Your task to perform on an android device: turn on notifications settings in the gmail app Image 0: 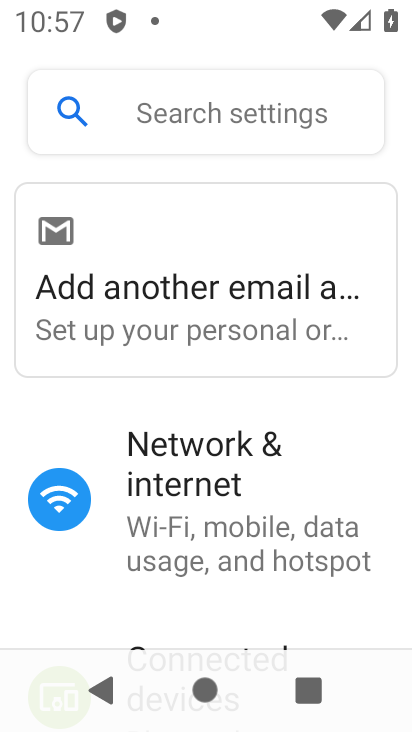
Step 0: press home button
Your task to perform on an android device: turn on notifications settings in the gmail app Image 1: 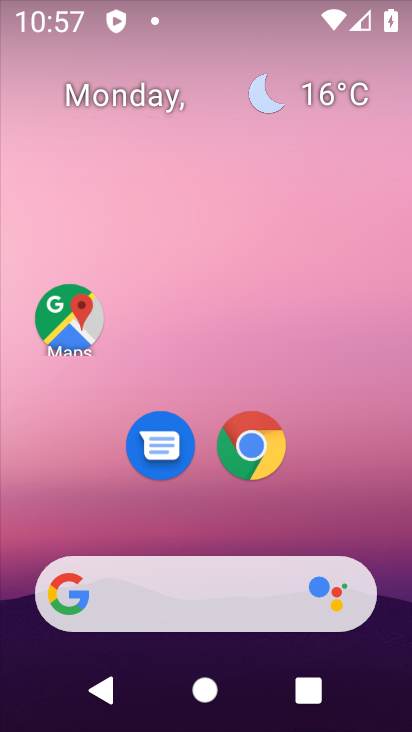
Step 1: drag from (213, 531) to (197, 20)
Your task to perform on an android device: turn on notifications settings in the gmail app Image 2: 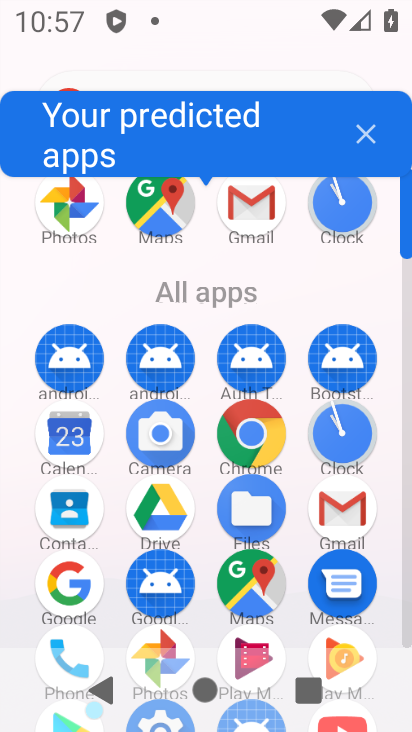
Step 2: click (346, 514)
Your task to perform on an android device: turn on notifications settings in the gmail app Image 3: 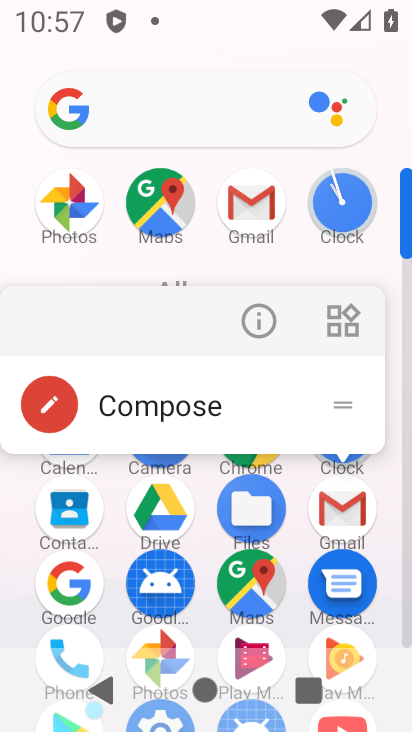
Step 3: click (337, 511)
Your task to perform on an android device: turn on notifications settings in the gmail app Image 4: 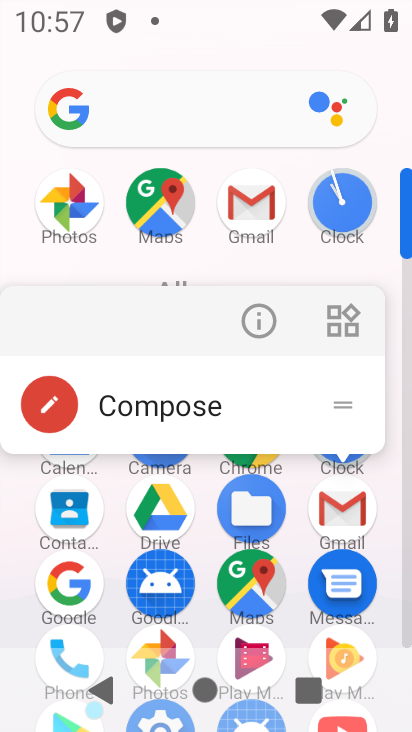
Step 4: click (339, 513)
Your task to perform on an android device: turn on notifications settings in the gmail app Image 5: 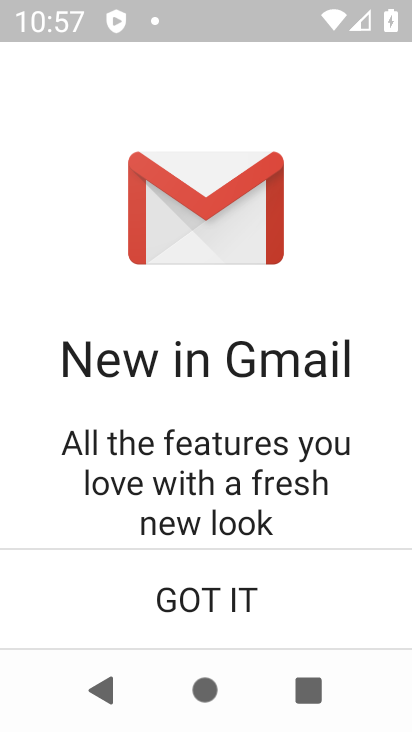
Step 5: click (236, 617)
Your task to perform on an android device: turn on notifications settings in the gmail app Image 6: 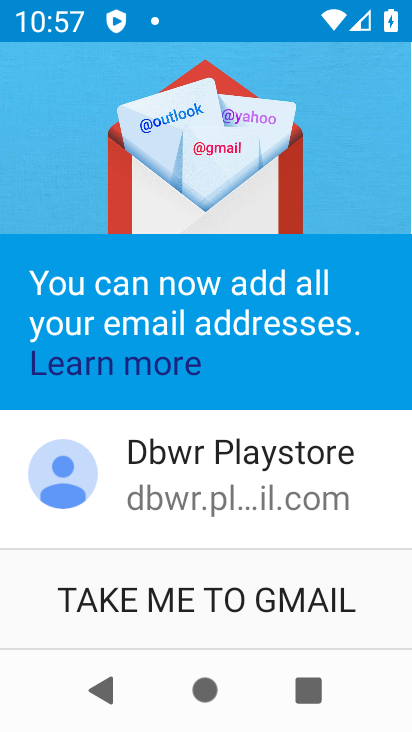
Step 6: click (236, 617)
Your task to perform on an android device: turn on notifications settings in the gmail app Image 7: 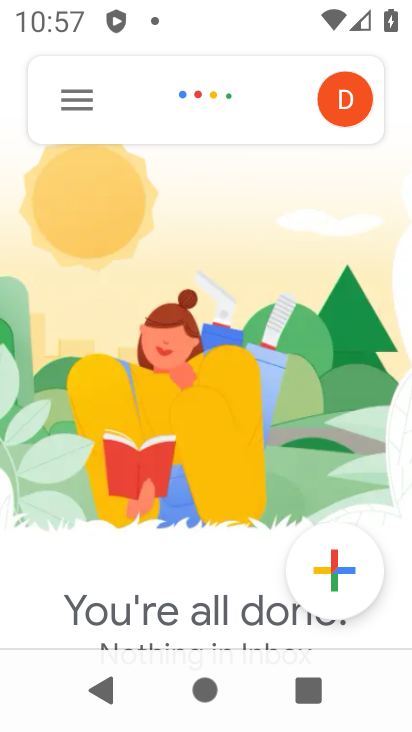
Step 7: click (71, 100)
Your task to perform on an android device: turn on notifications settings in the gmail app Image 8: 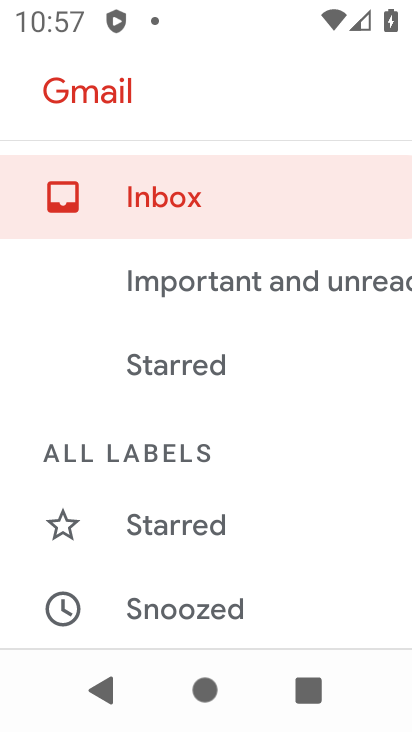
Step 8: drag from (166, 502) to (182, 11)
Your task to perform on an android device: turn on notifications settings in the gmail app Image 9: 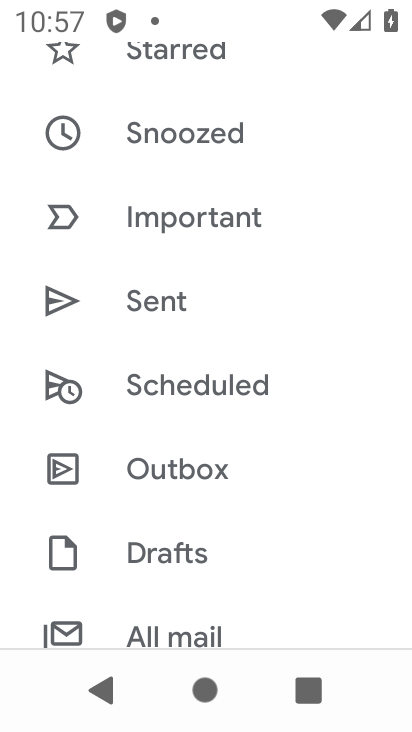
Step 9: drag from (160, 513) to (181, 24)
Your task to perform on an android device: turn on notifications settings in the gmail app Image 10: 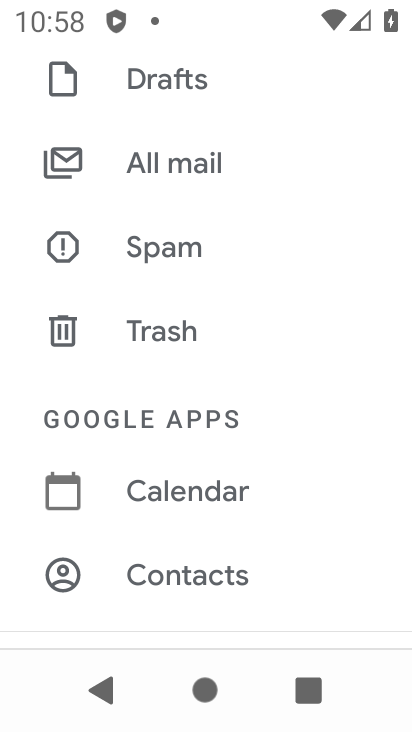
Step 10: drag from (172, 583) to (173, 15)
Your task to perform on an android device: turn on notifications settings in the gmail app Image 11: 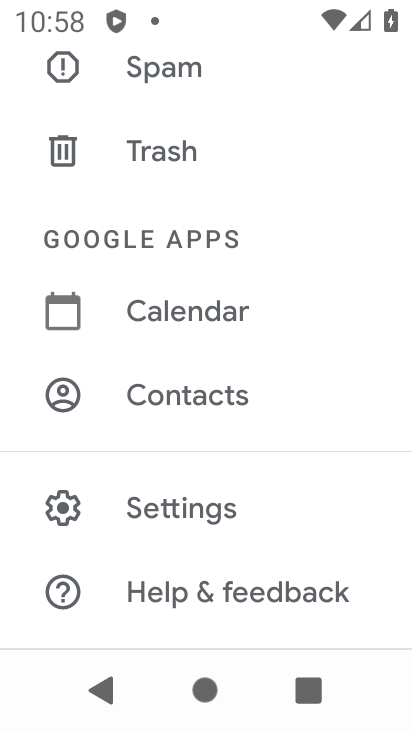
Step 11: click (202, 520)
Your task to perform on an android device: turn on notifications settings in the gmail app Image 12: 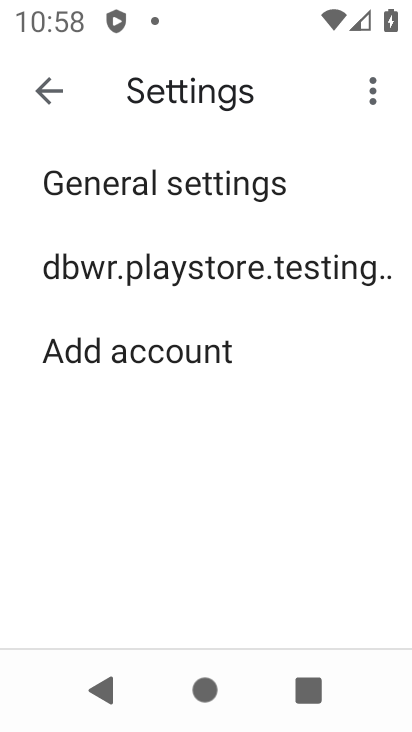
Step 12: click (183, 195)
Your task to perform on an android device: turn on notifications settings in the gmail app Image 13: 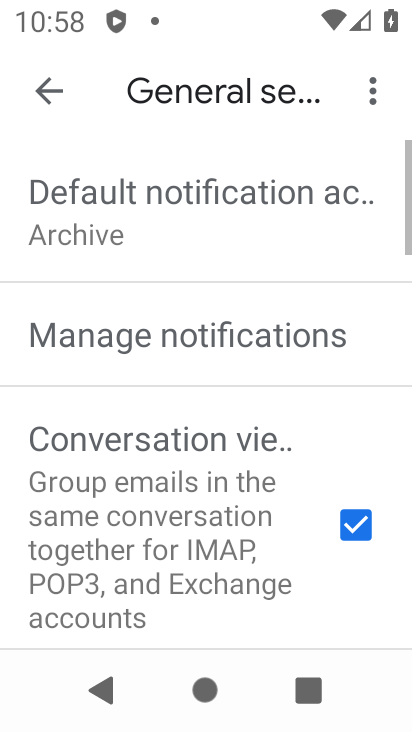
Step 13: click (178, 349)
Your task to perform on an android device: turn on notifications settings in the gmail app Image 14: 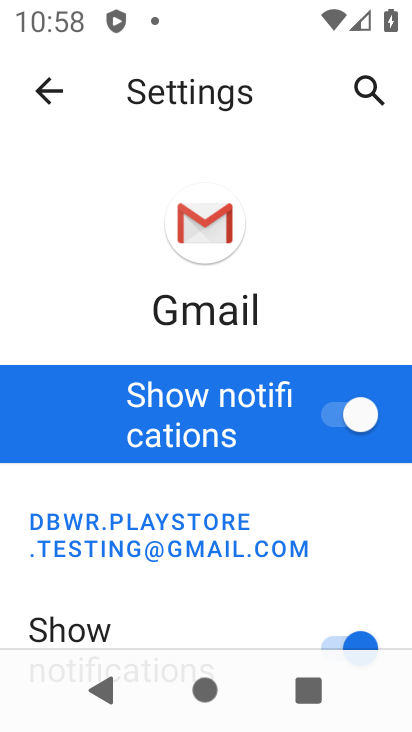
Step 14: task complete